Your task to perform on an android device: Search for pizza restaurants on Maps Image 0: 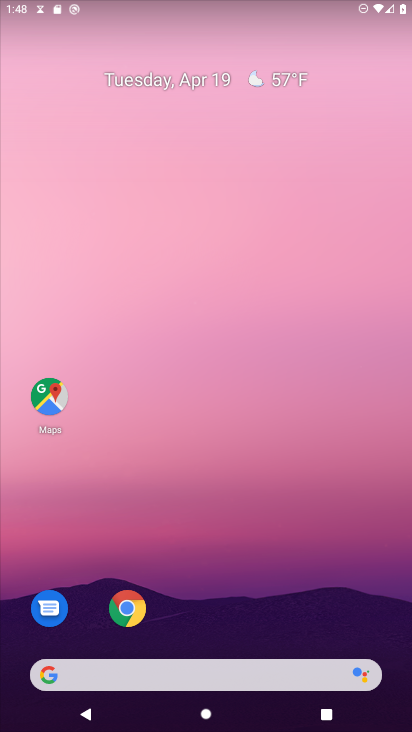
Step 0: click (35, 395)
Your task to perform on an android device: Search for pizza restaurants on Maps Image 1: 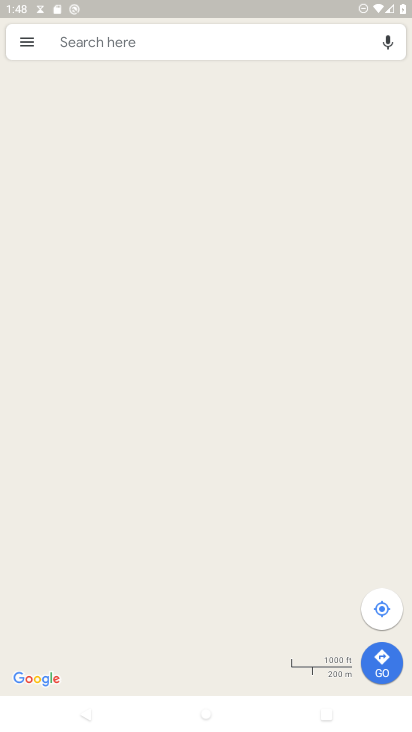
Step 1: click (125, 40)
Your task to perform on an android device: Search for pizza restaurants on Maps Image 2: 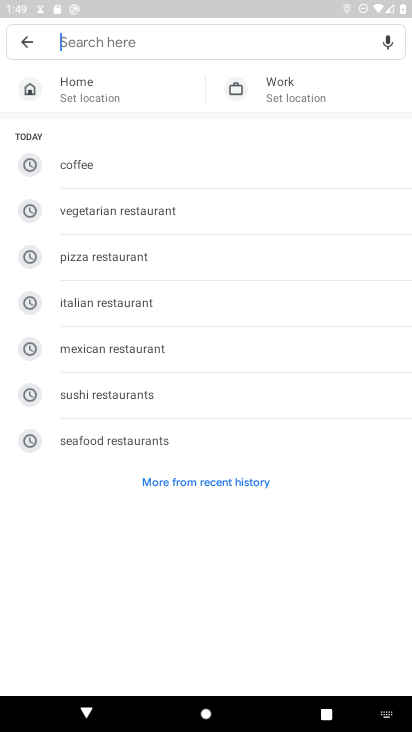
Step 2: type "pizza restaurants"
Your task to perform on an android device: Search for pizza restaurants on Maps Image 3: 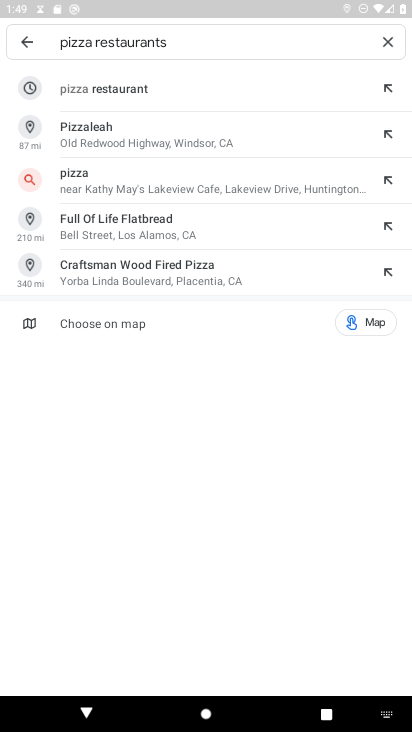
Step 3: click (129, 92)
Your task to perform on an android device: Search for pizza restaurants on Maps Image 4: 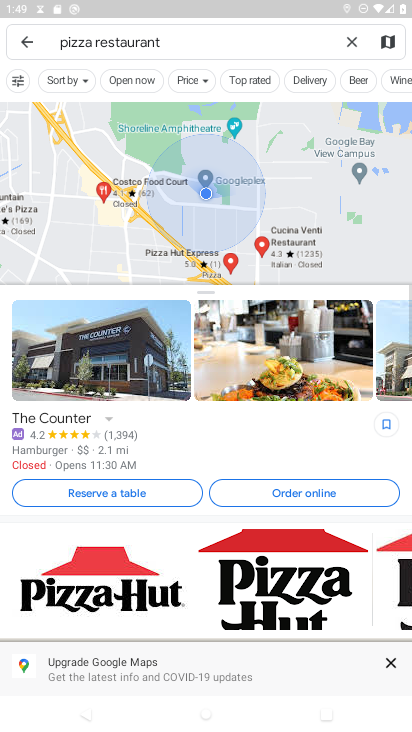
Step 4: task complete